Your task to perform on an android device: Open Google Chrome and open the bookmarks view Image 0: 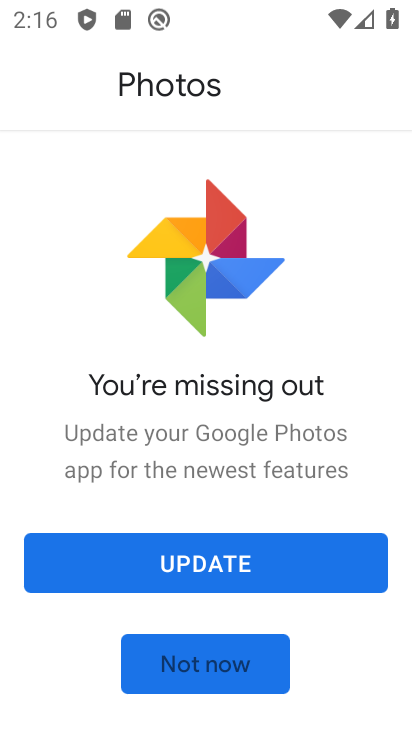
Step 0: click (251, 669)
Your task to perform on an android device: Open Google Chrome and open the bookmarks view Image 1: 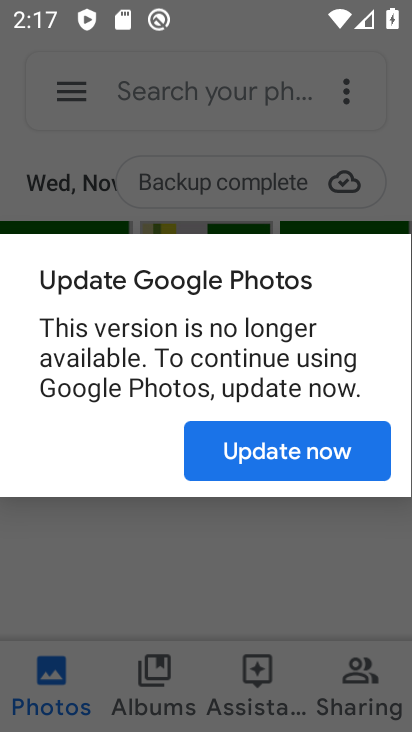
Step 1: press home button
Your task to perform on an android device: Open Google Chrome and open the bookmarks view Image 2: 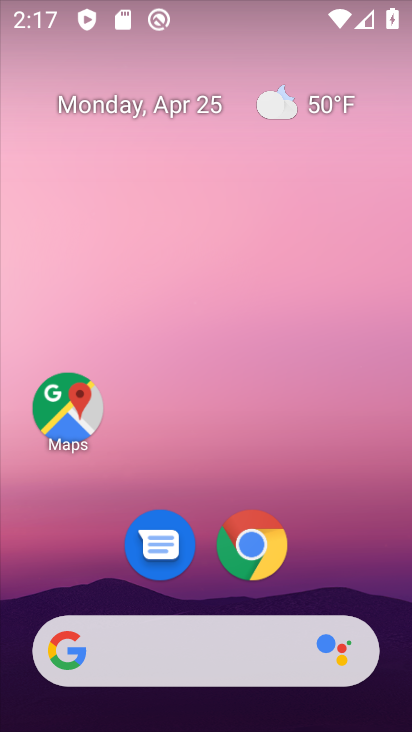
Step 2: click (247, 549)
Your task to perform on an android device: Open Google Chrome and open the bookmarks view Image 3: 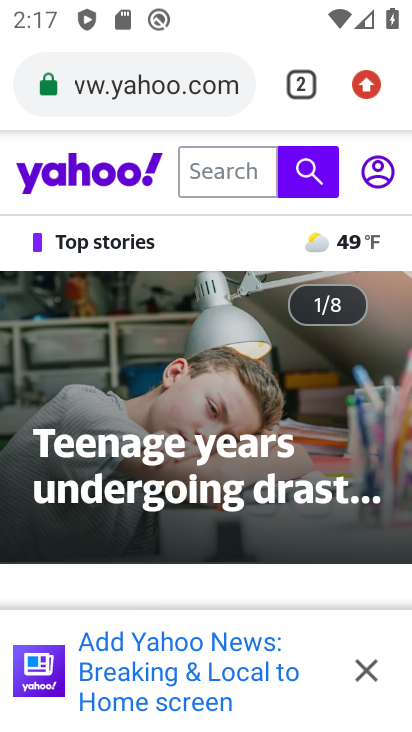
Step 3: click (372, 79)
Your task to perform on an android device: Open Google Chrome and open the bookmarks view Image 4: 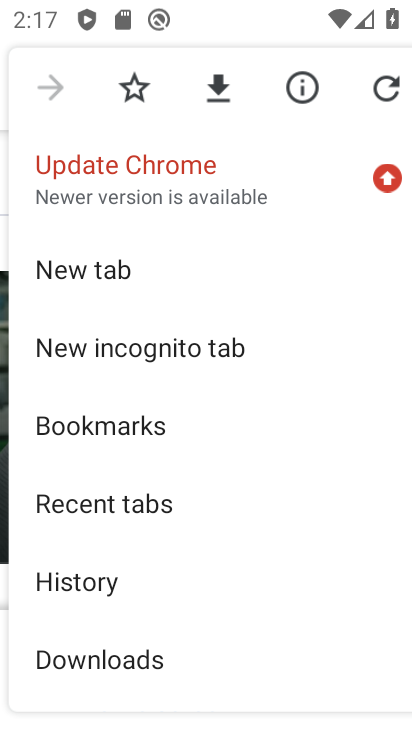
Step 4: click (144, 428)
Your task to perform on an android device: Open Google Chrome and open the bookmarks view Image 5: 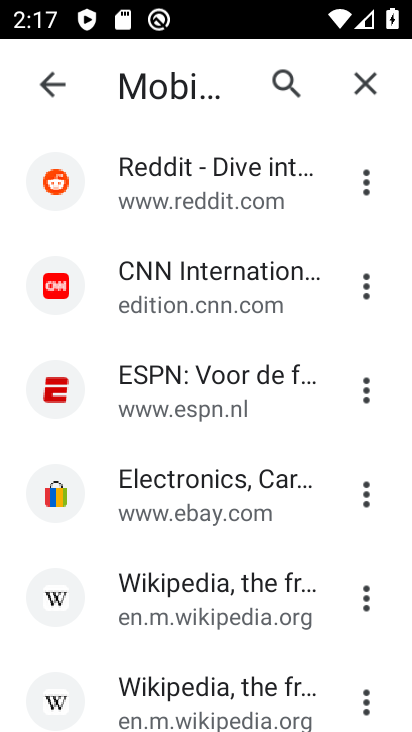
Step 5: click (193, 484)
Your task to perform on an android device: Open Google Chrome and open the bookmarks view Image 6: 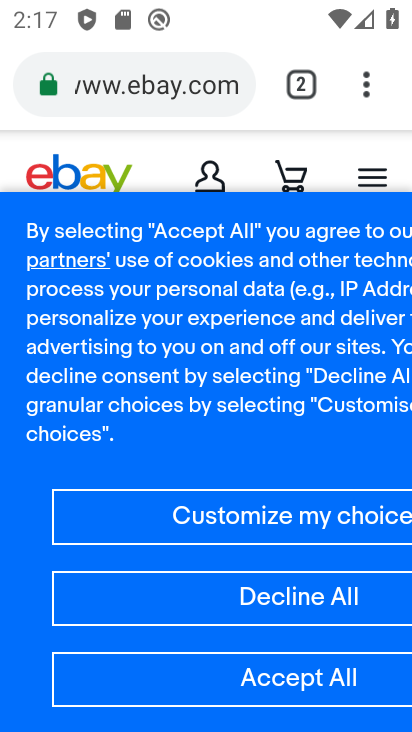
Step 6: task complete